Your task to perform on an android device: Open Yahoo.com Image 0: 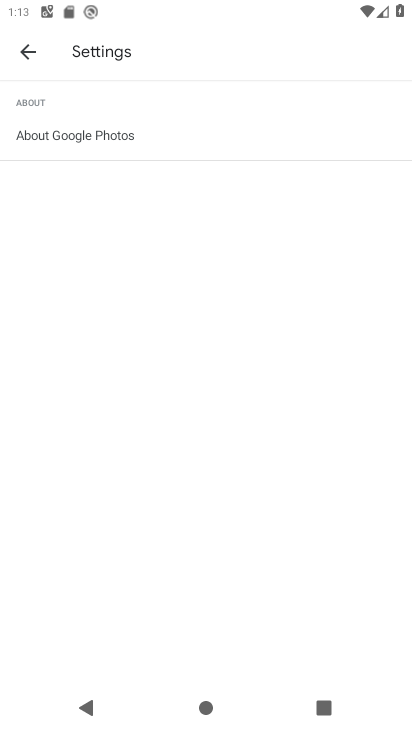
Step 0: press home button
Your task to perform on an android device: Open Yahoo.com Image 1: 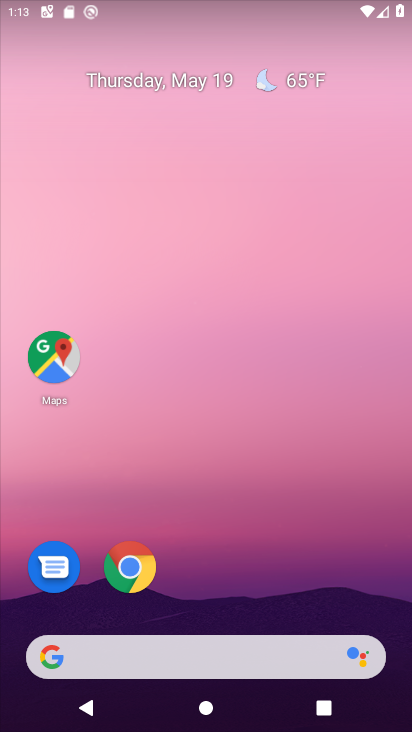
Step 1: click (134, 562)
Your task to perform on an android device: Open Yahoo.com Image 2: 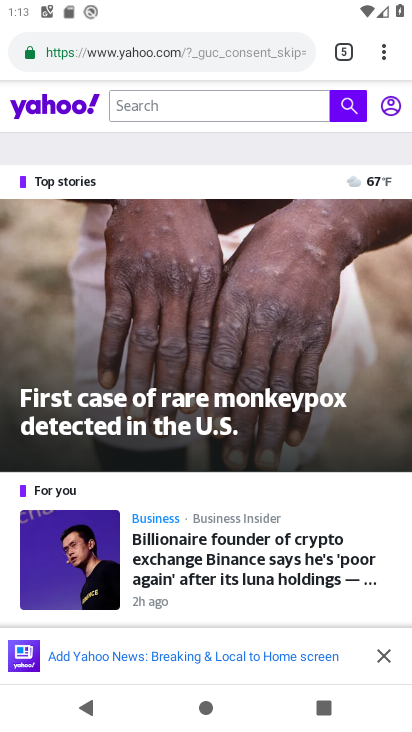
Step 2: task complete